Your task to perform on an android device: Add usb-c to usb-b to the cart on ebay.com Image 0: 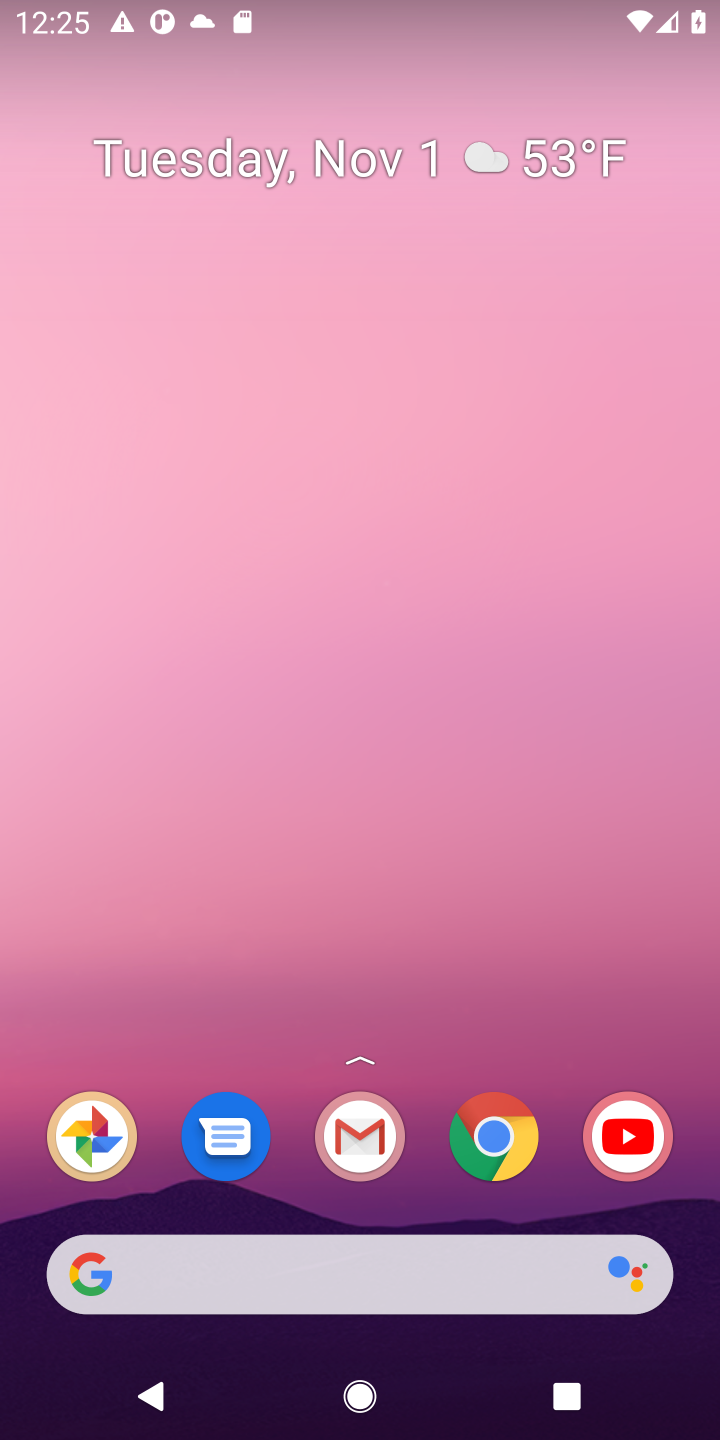
Step 0: press home button
Your task to perform on an android device: Add usb-c to usb-b to the cart on ebay.com Image 1: 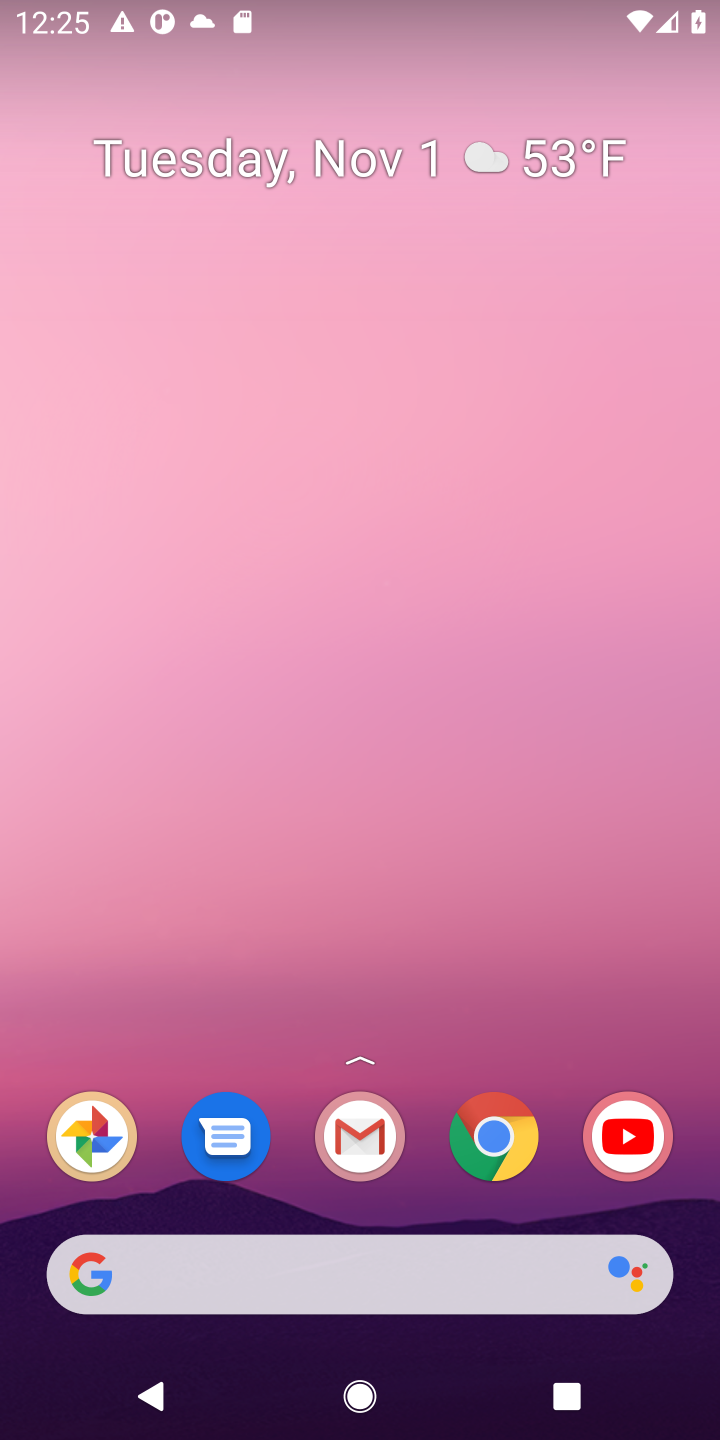
Step 1: click (134, 1269)
Your task to perform on an android device: Add usb-c to usb-b to the cart on ebay.com Image 2: 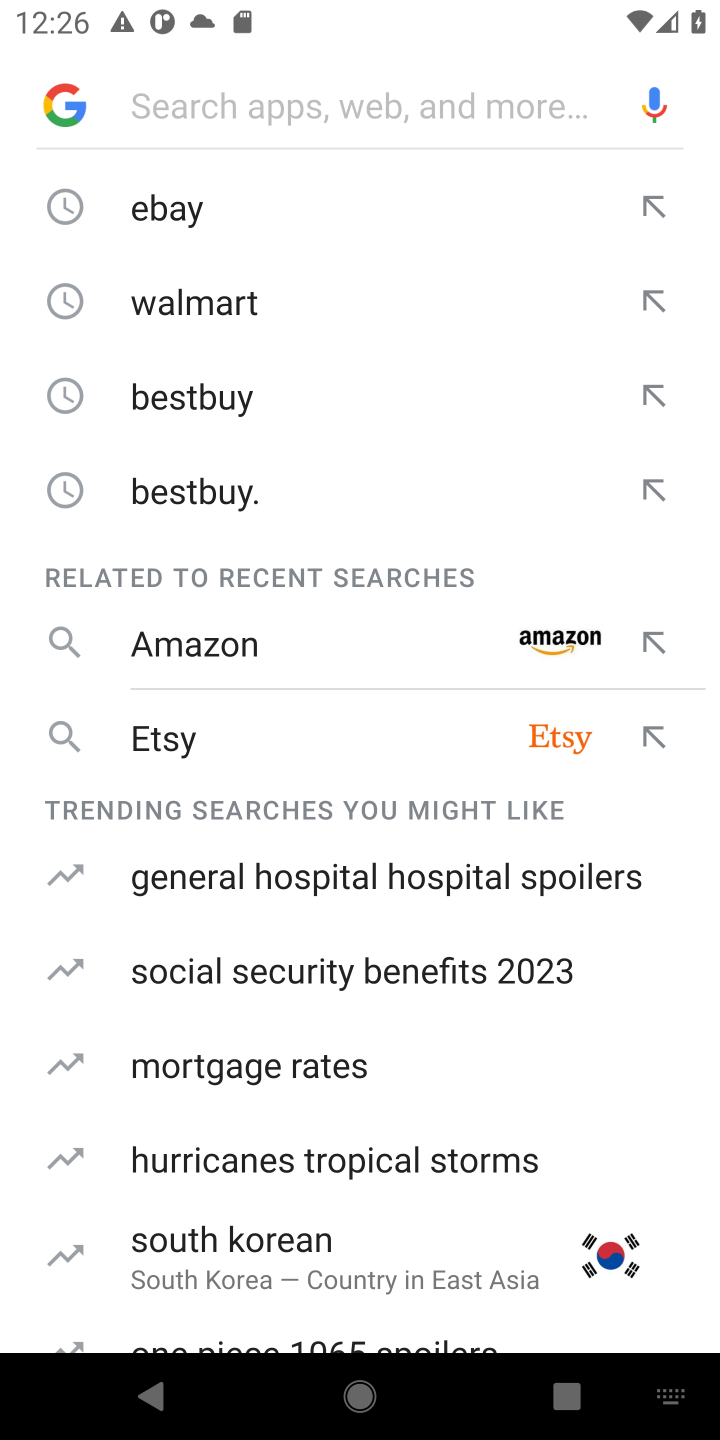
Step 2: type "ebay.com"
Your task to perform on an android device: Add usb-c to usb-b to the cart on ebay.com Image 3: 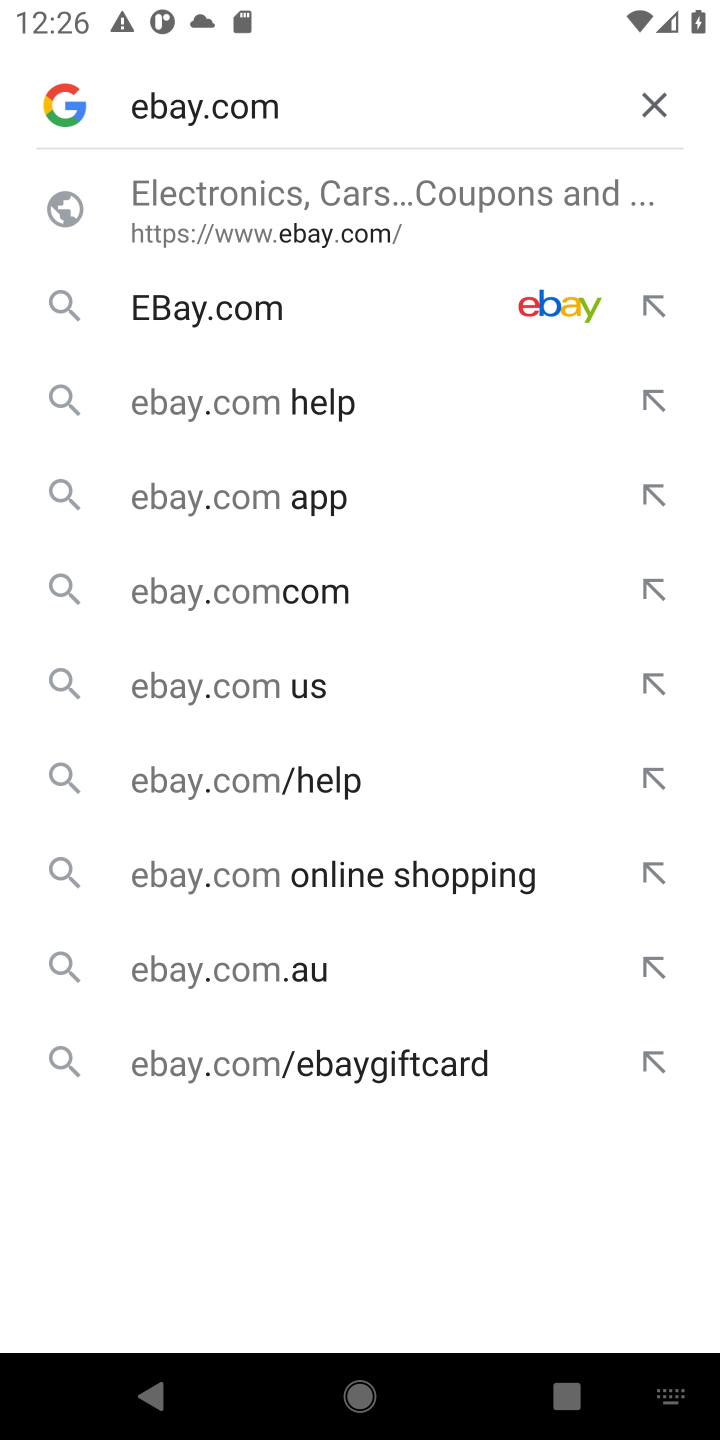
Step 3: press enter
Your task to perform on an android device: Add usb-c to usb-b to the cart on ebay.com Image 4: 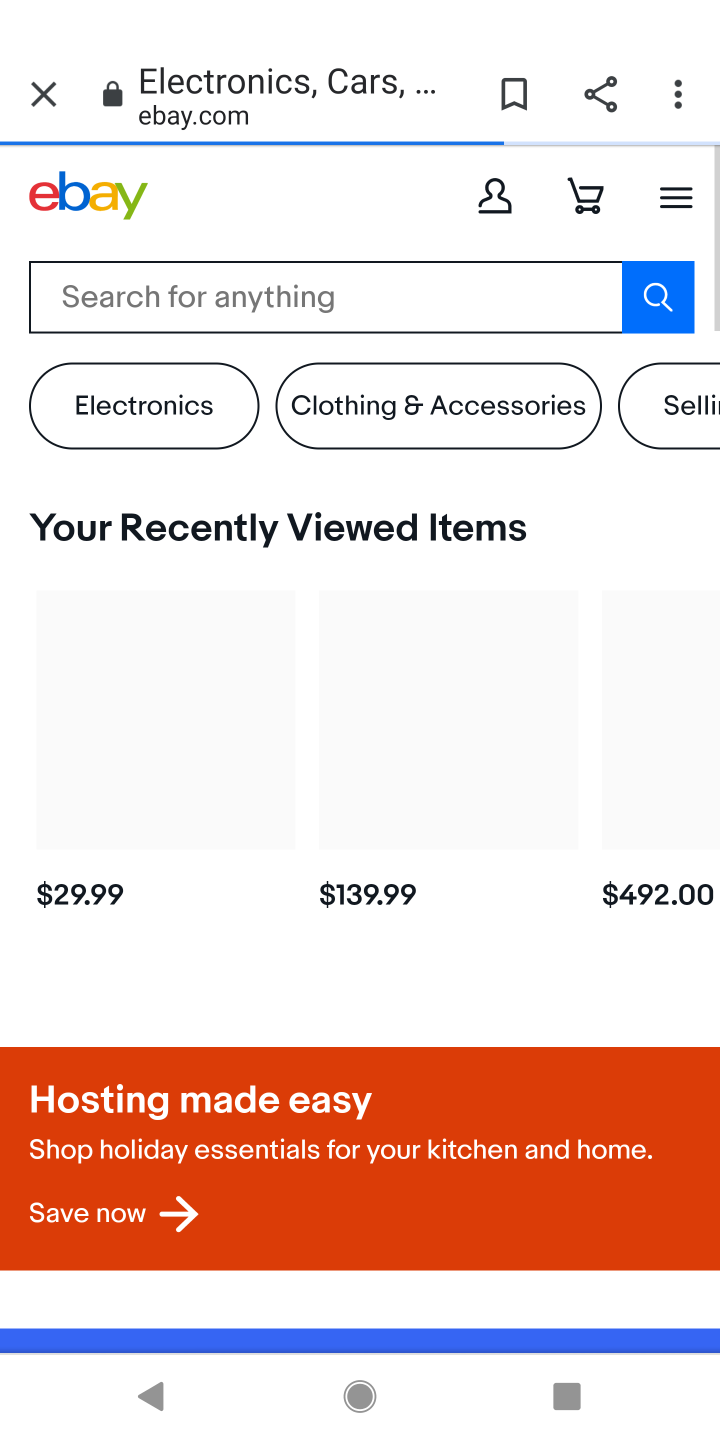
Step 4: press enter
Your task to perform on an android device: Add usb-c to usb-b to the cart on ebay.com Image 5: 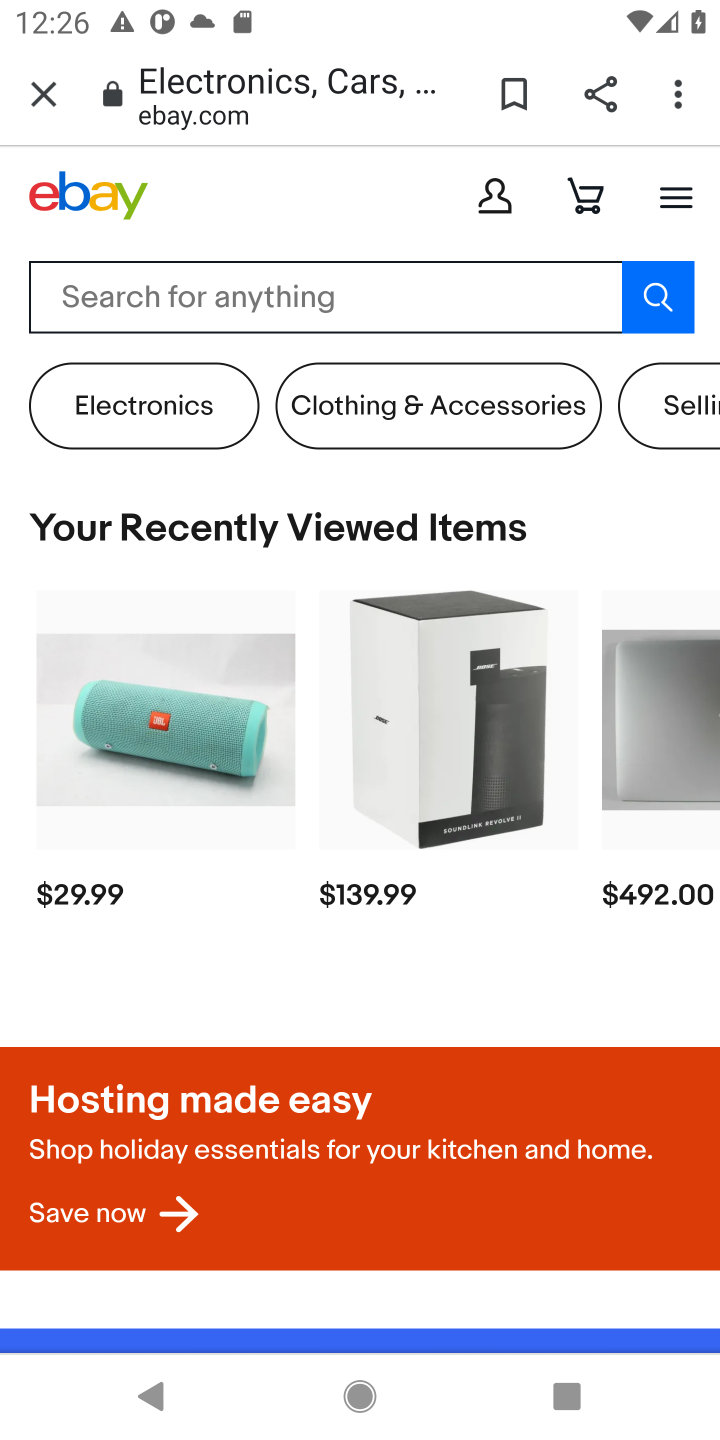
Step 5: click (110, 299)
Your task to perform on an android device: Add usb-c to usb-b to the cart on ebay.com Image 6: 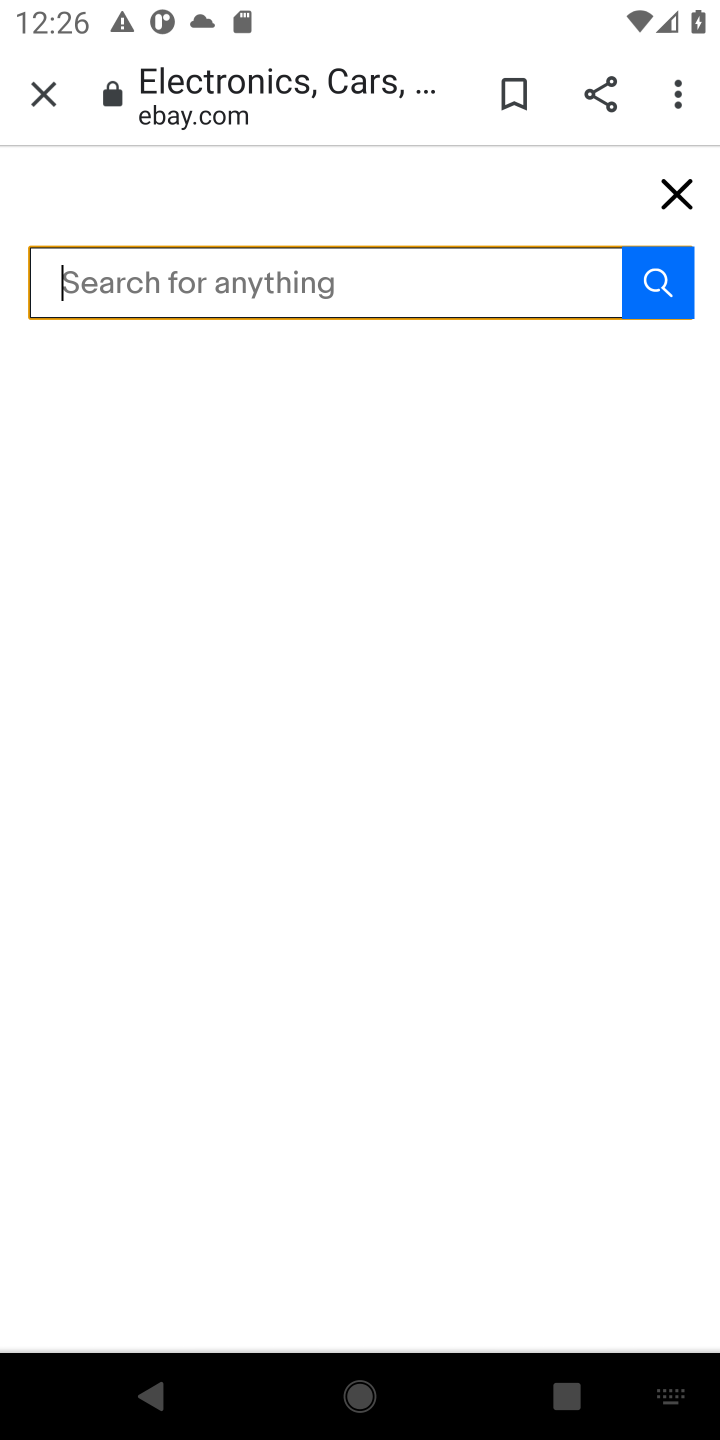
Step 6: type " usb-c to usb-b"
Your task to perform on an android device: Add usb-c to usb-b to the cart on ebay.com Image 7: 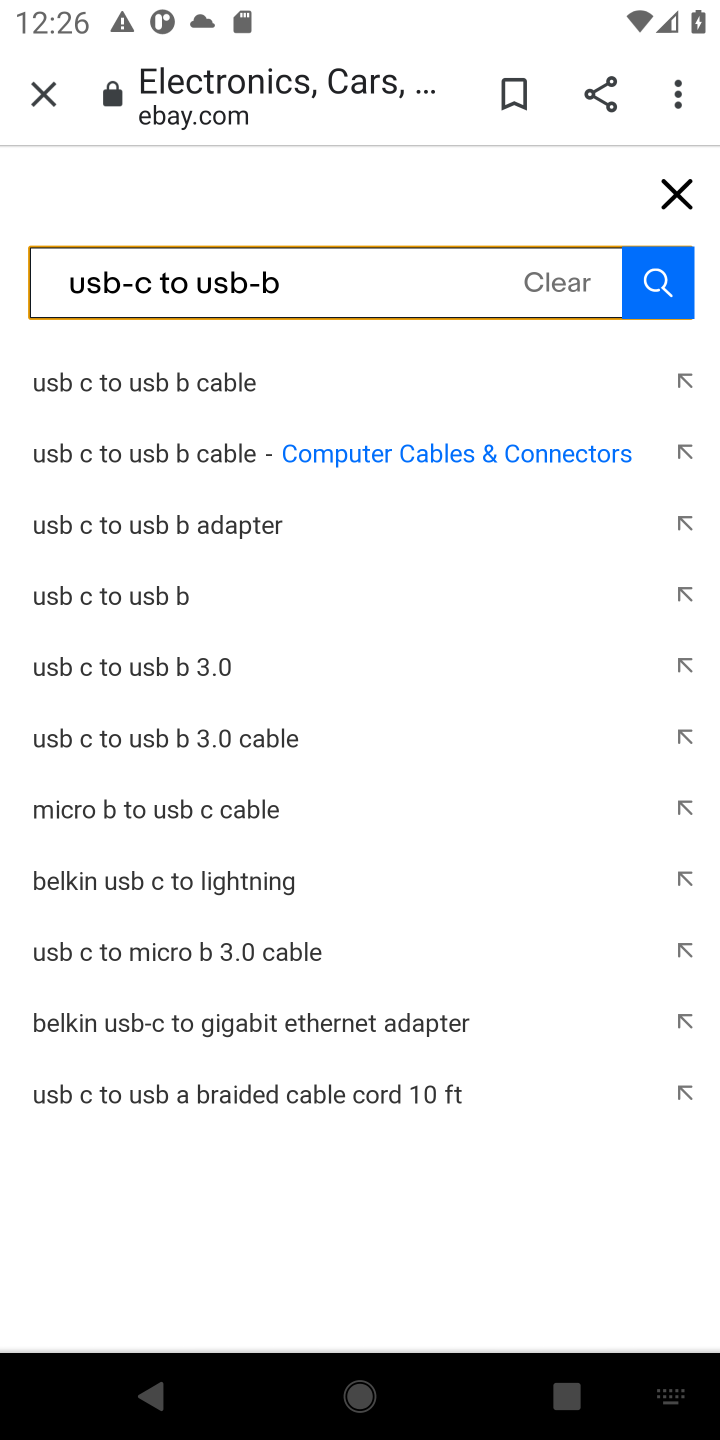
Step 7: click (671, 285)
Your task to perform on an android device: Add usb-c to usb-b to the cart on ebay.com Image 8: 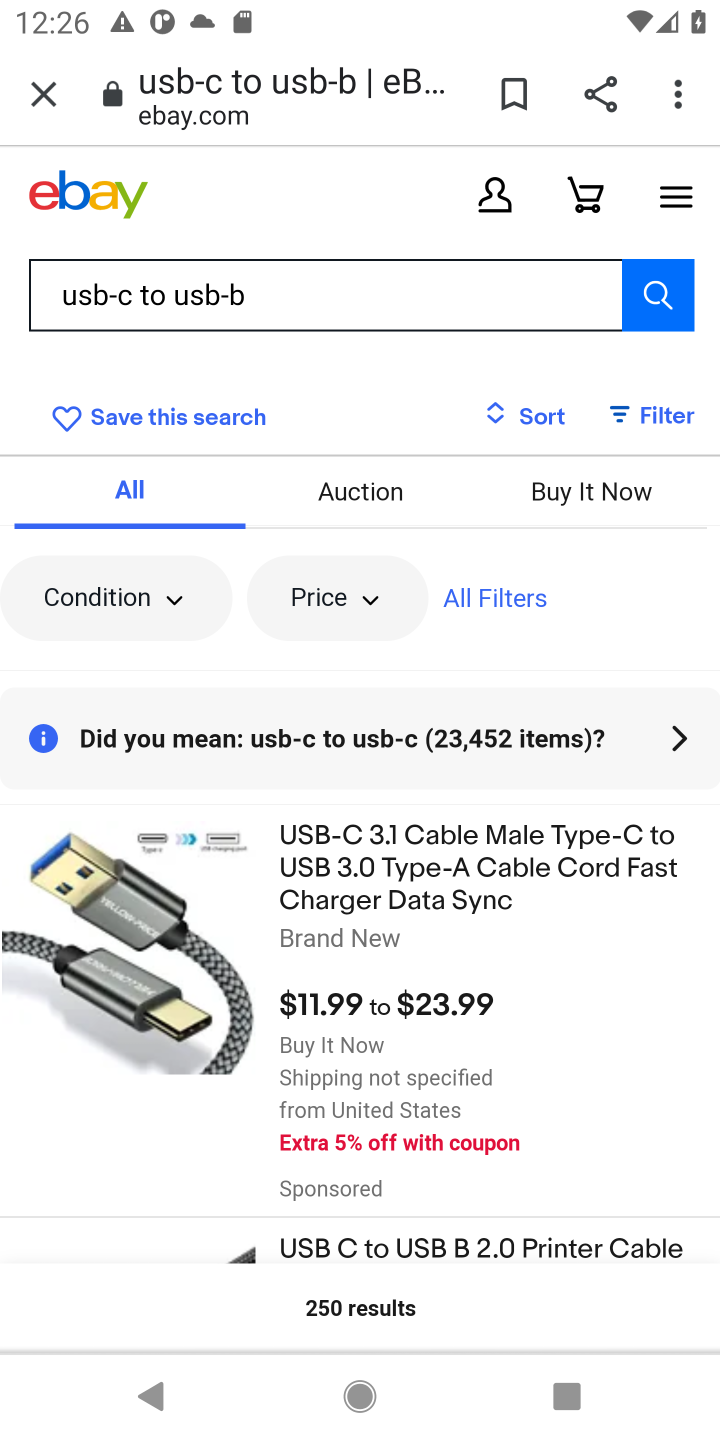
Step 8: drag from (477, 1121) to (470, 846)
Your task to perform on an android device: Add usb-c to usb-b to the cart on ebay.com Image 9: 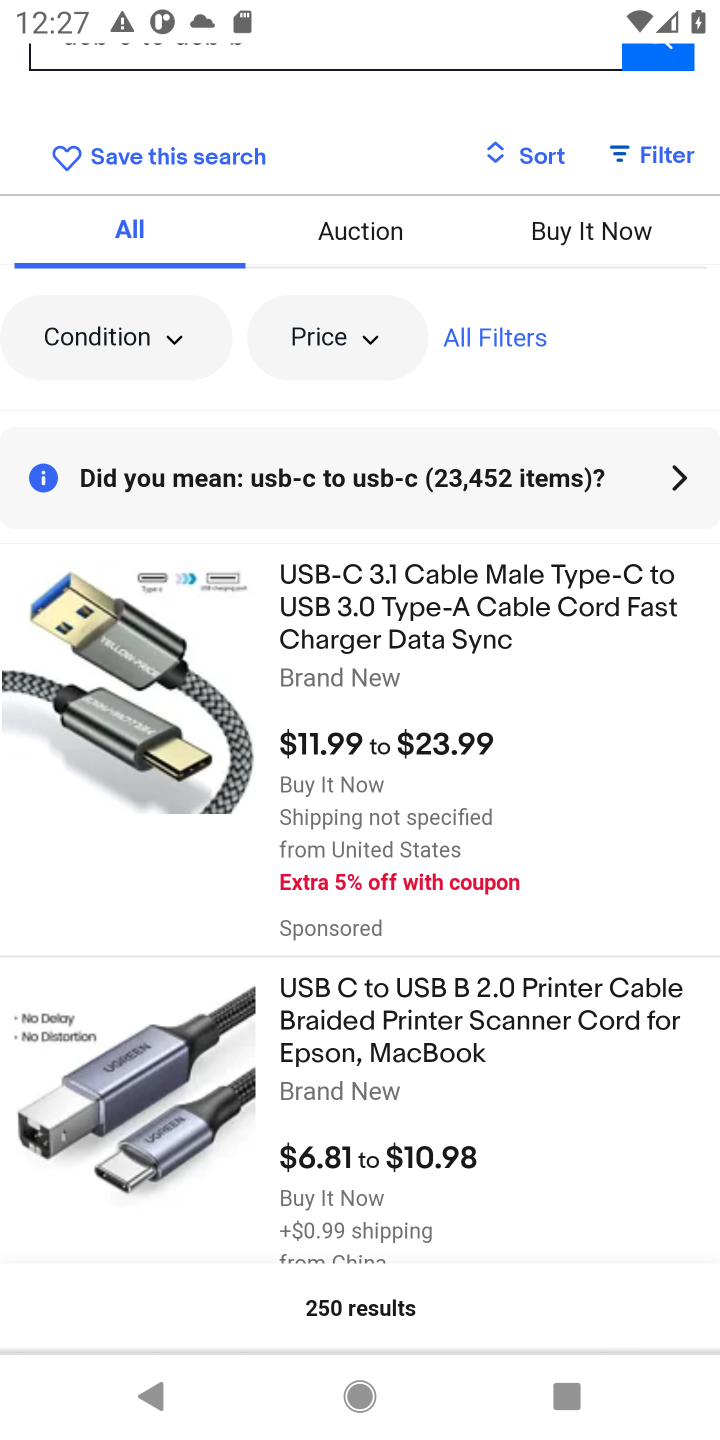
Step 9: drag from (472, 1154) to (508, 811)
Your task to perform on an android device: Add usb-c to usb-b to the cart on ebay.com Image 10: 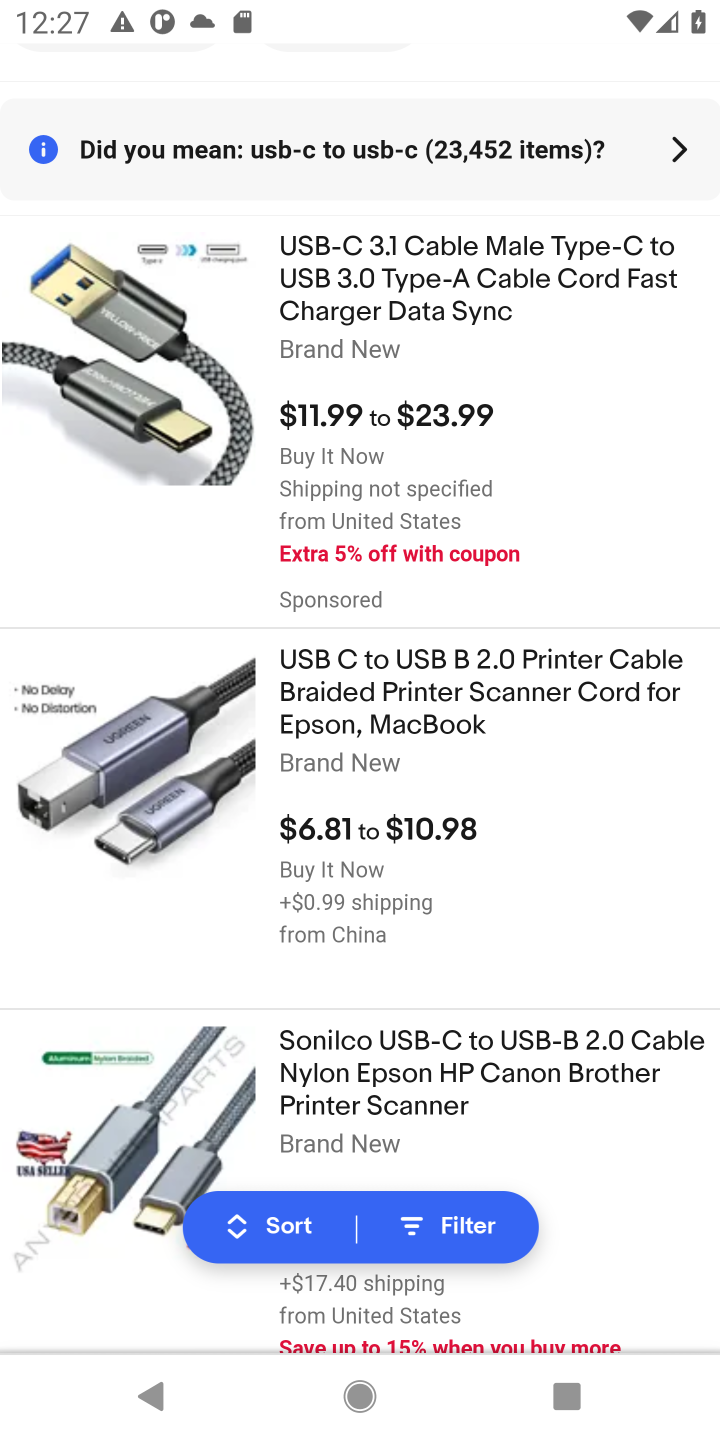
Step 10: click (392, 696)
Your task to perform on an android device: Add usb-c to usb-b to the cart on ebay.com Image 11: 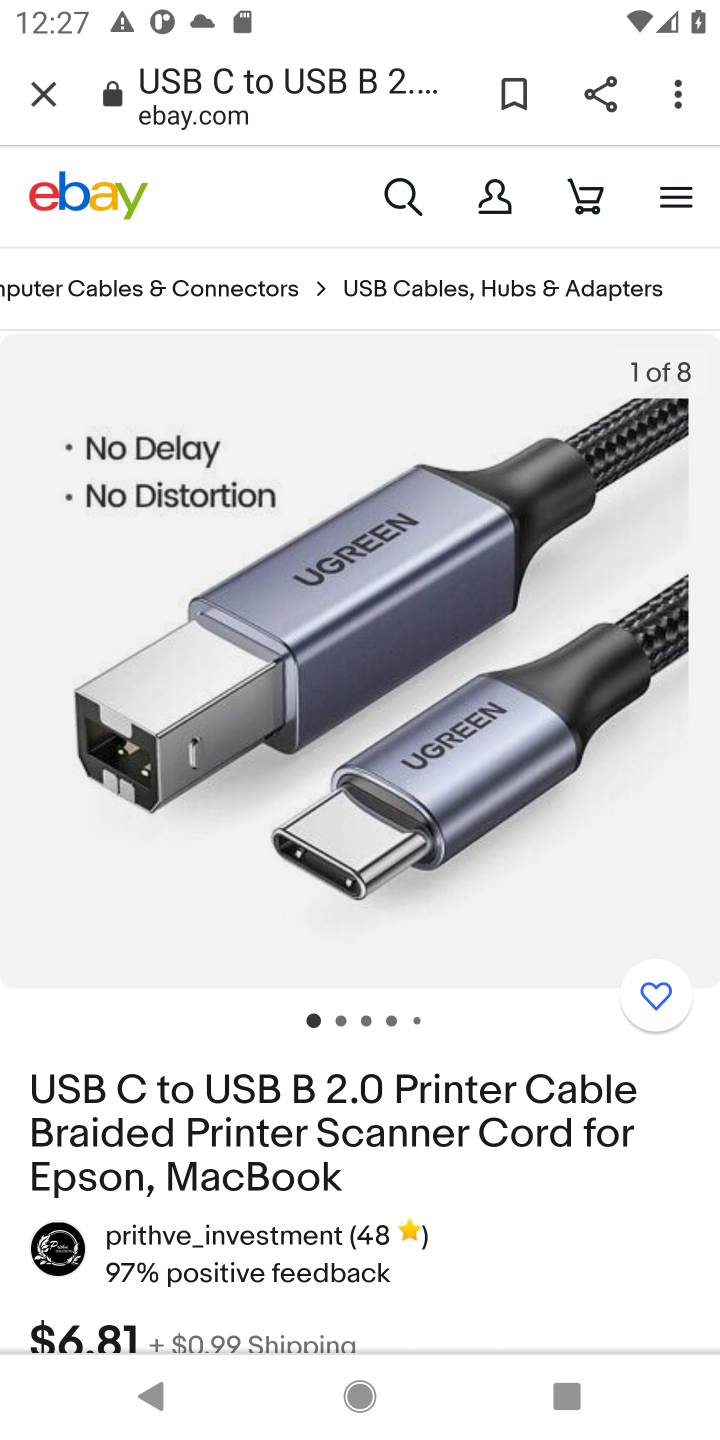
Step 11: drag from (414, 1114) to (478, 690)
Your task to perform on an android device: Add usb-c to usb-b to the cart on ebay.com Image 12: 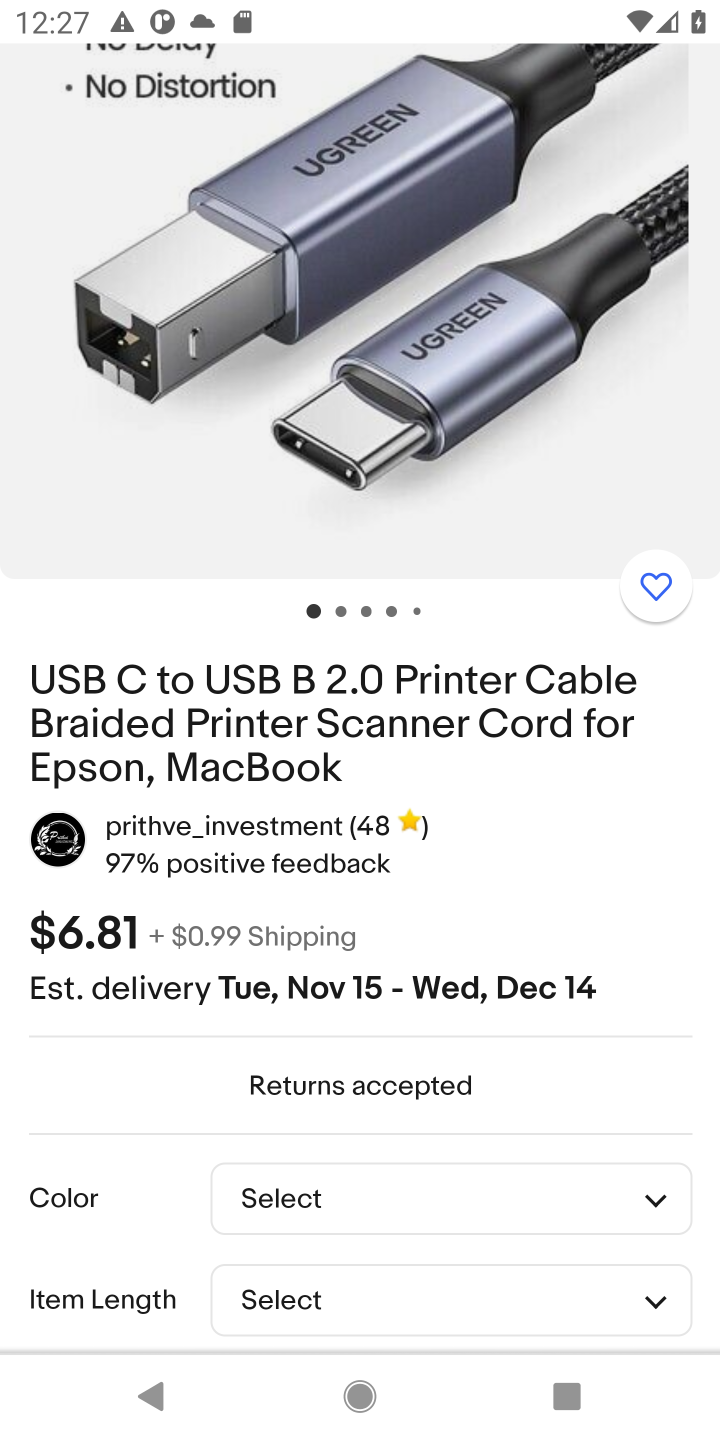
Step 12: drag from (402, 1168) to (447, 417)
Your task to perform on an android device: Add usb-c to usb-b to the cart on ebay.com Image 13: 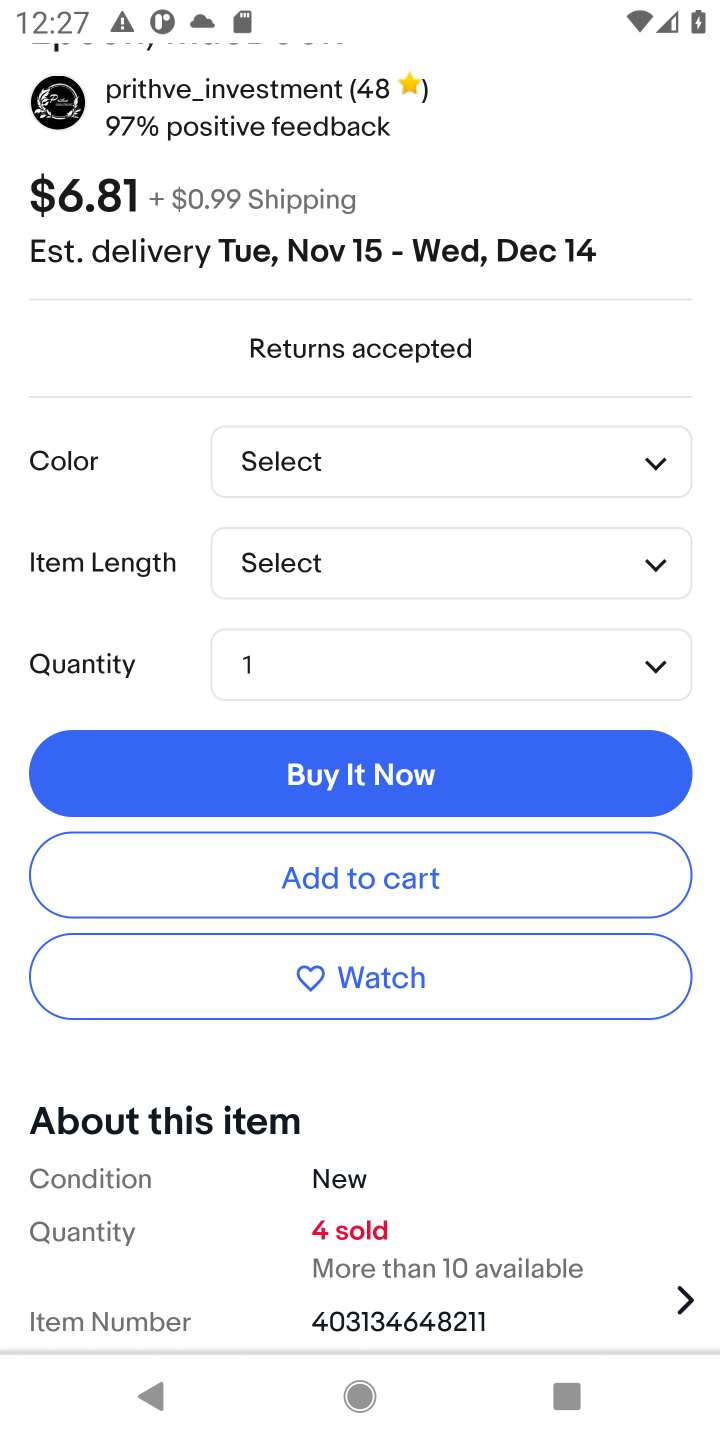
Step 13: click (341, 871)
Your task to perform on an android device: Add usb-c to usb-b to the cart on ebay.com Image 14: 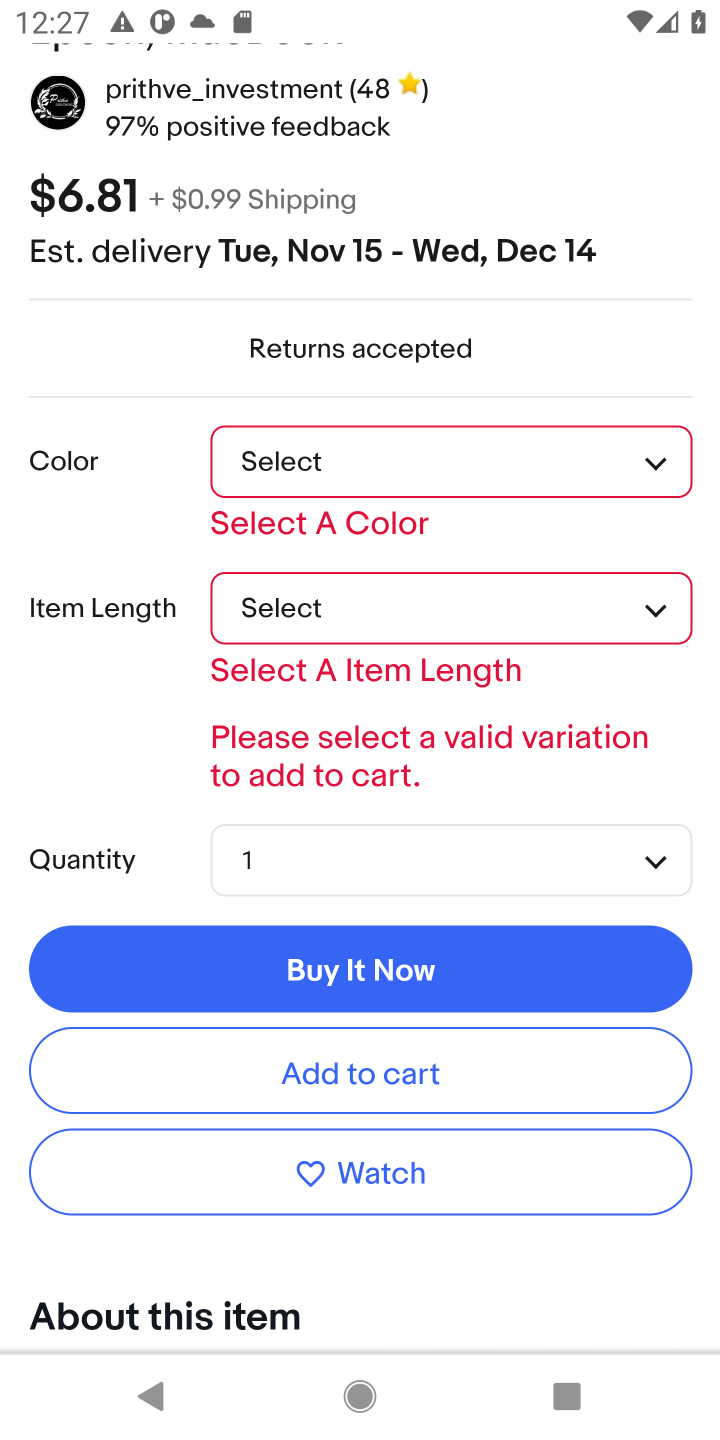
Step 14: click (655, 454)
Your task to perform on an android device: Add usb-c to usb-b to the cart on ebay.com Image 15: 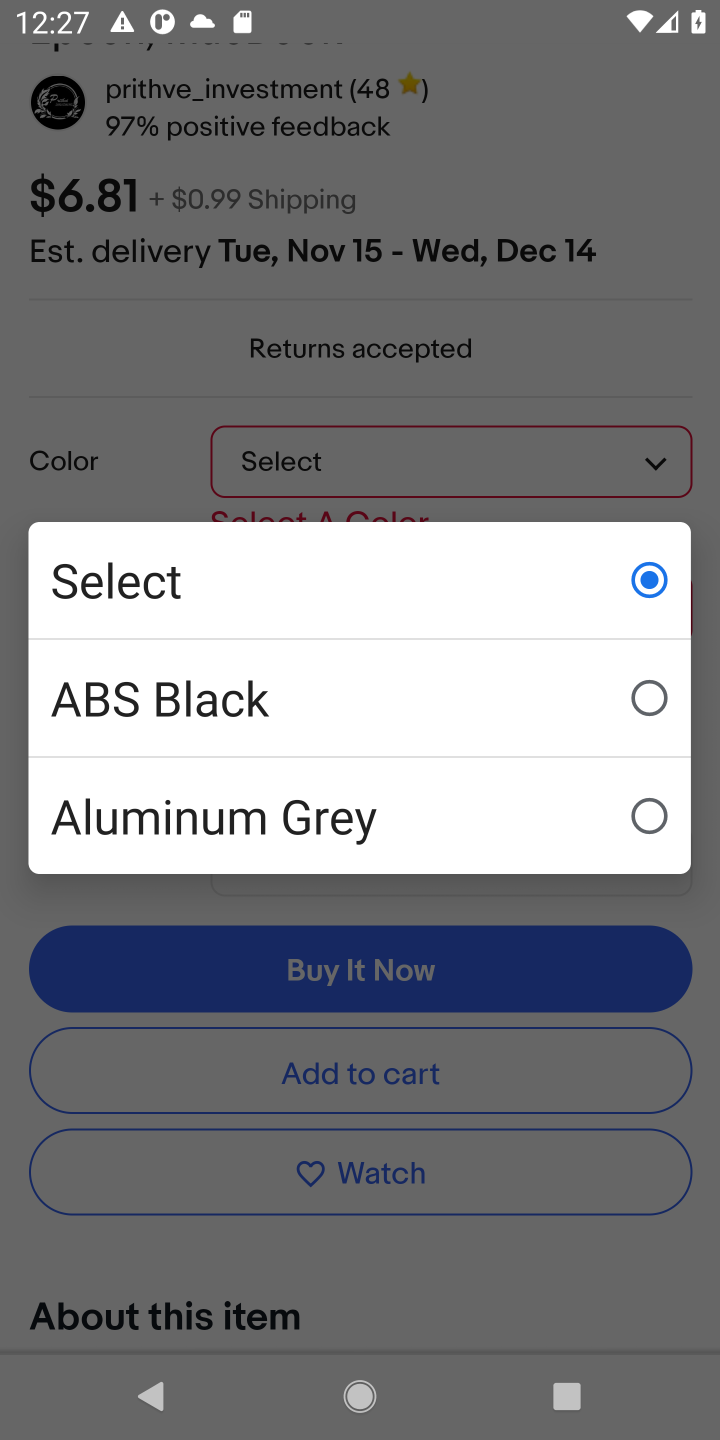
Step 15: click (650, 699)
Your task to perform on an android device: Add usb-c to usb-b to the cart on ebay.com Image 16: 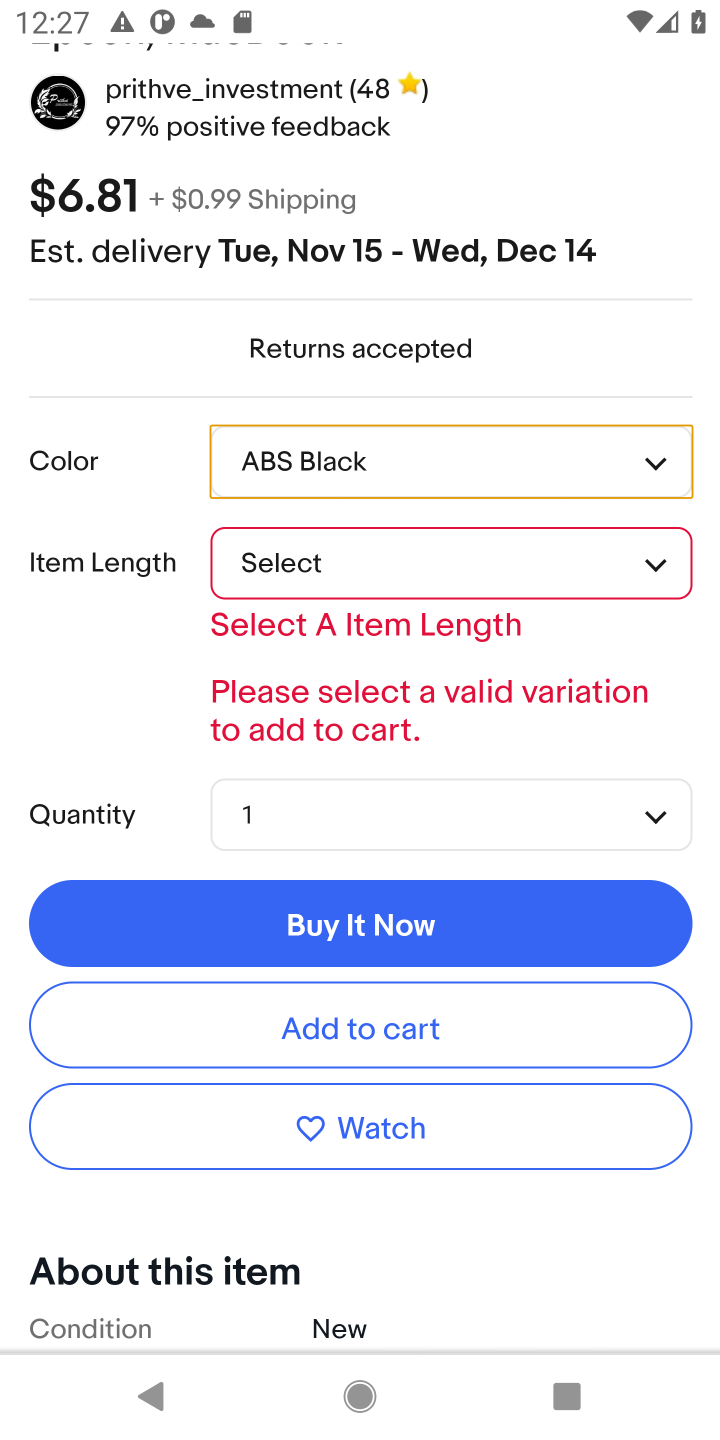
Step 16: click (647, 558)
Your task to perform on an android device: Add usb-c to usb-b to the cart on ebay.com Image 17: 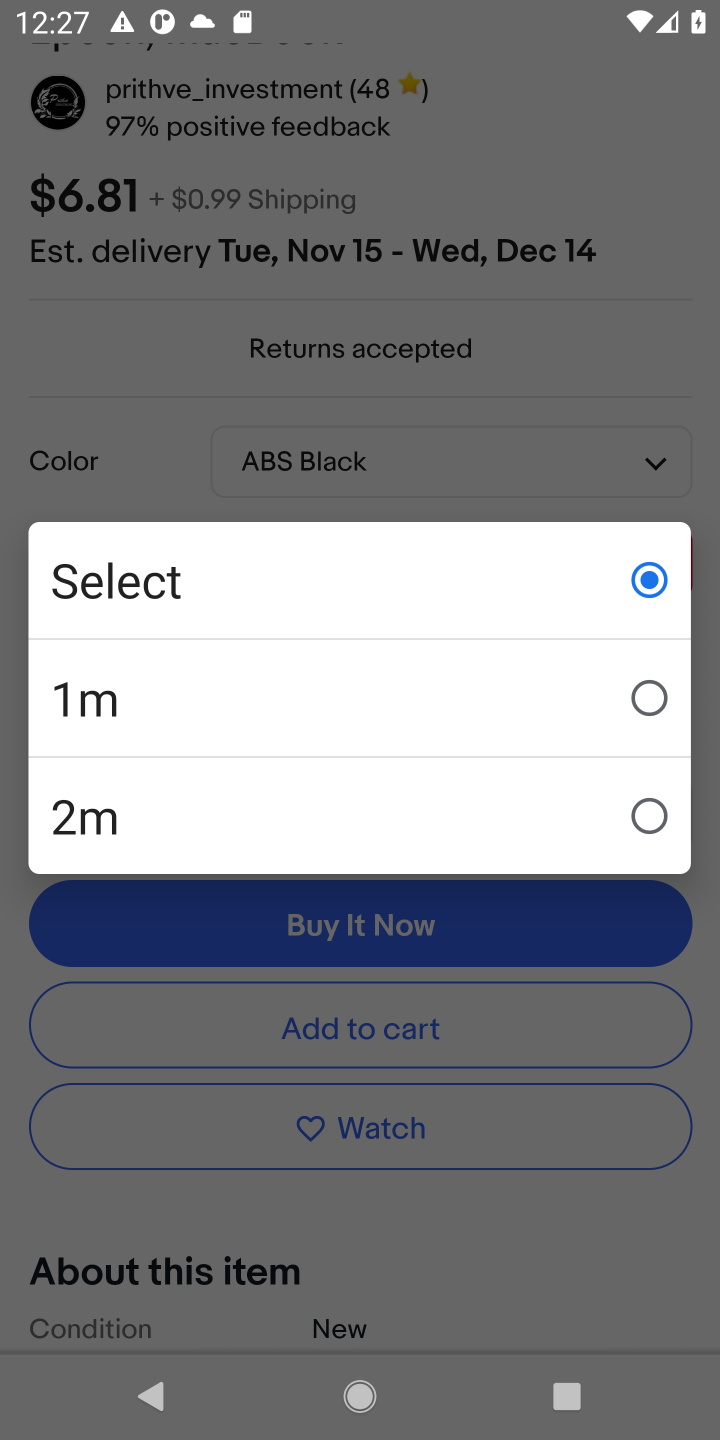
Step 17: click (659, 714)
Your task to perform on an android device: Add usb-c to usb-b to the cart on ebay.com Image 18: 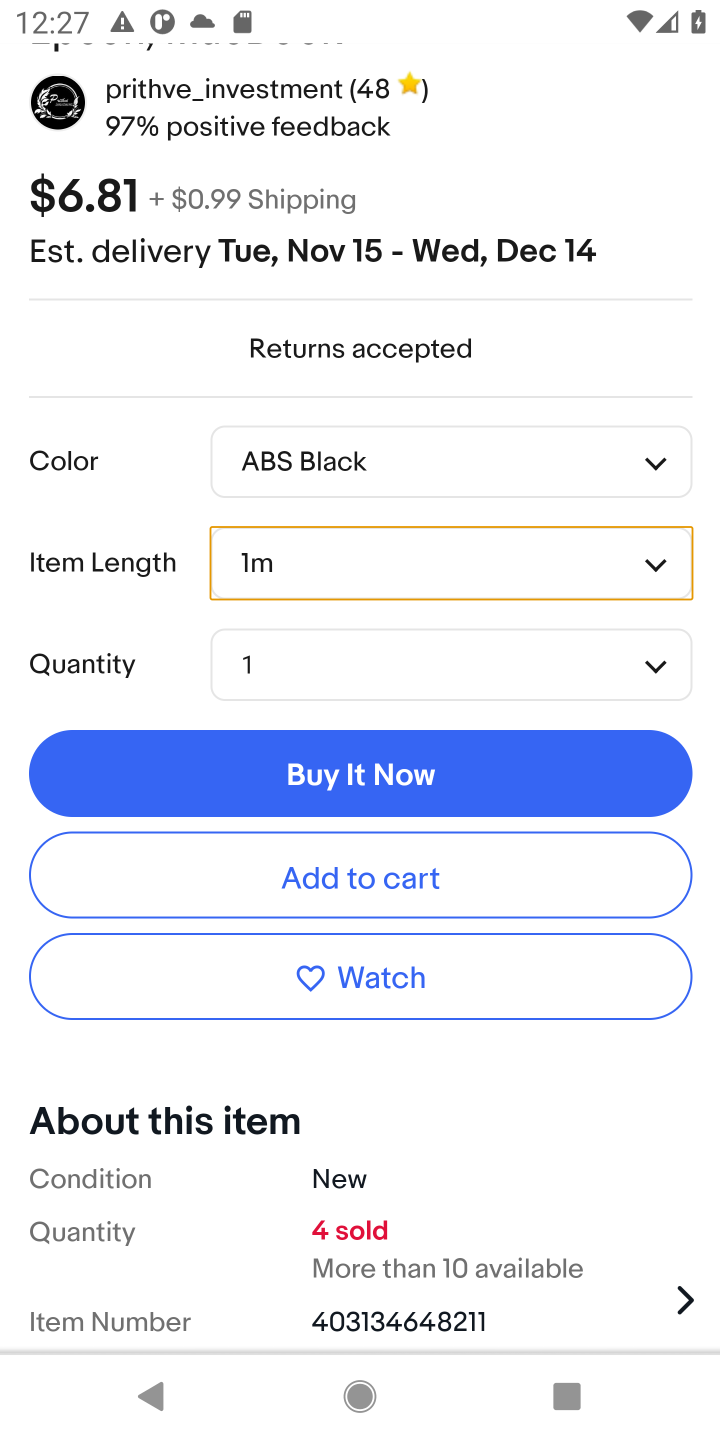
Step 18: click (383, 880)
Your task to perform on an android device: Add usb-c to usb-b to the cart on ebay.com Image 19: 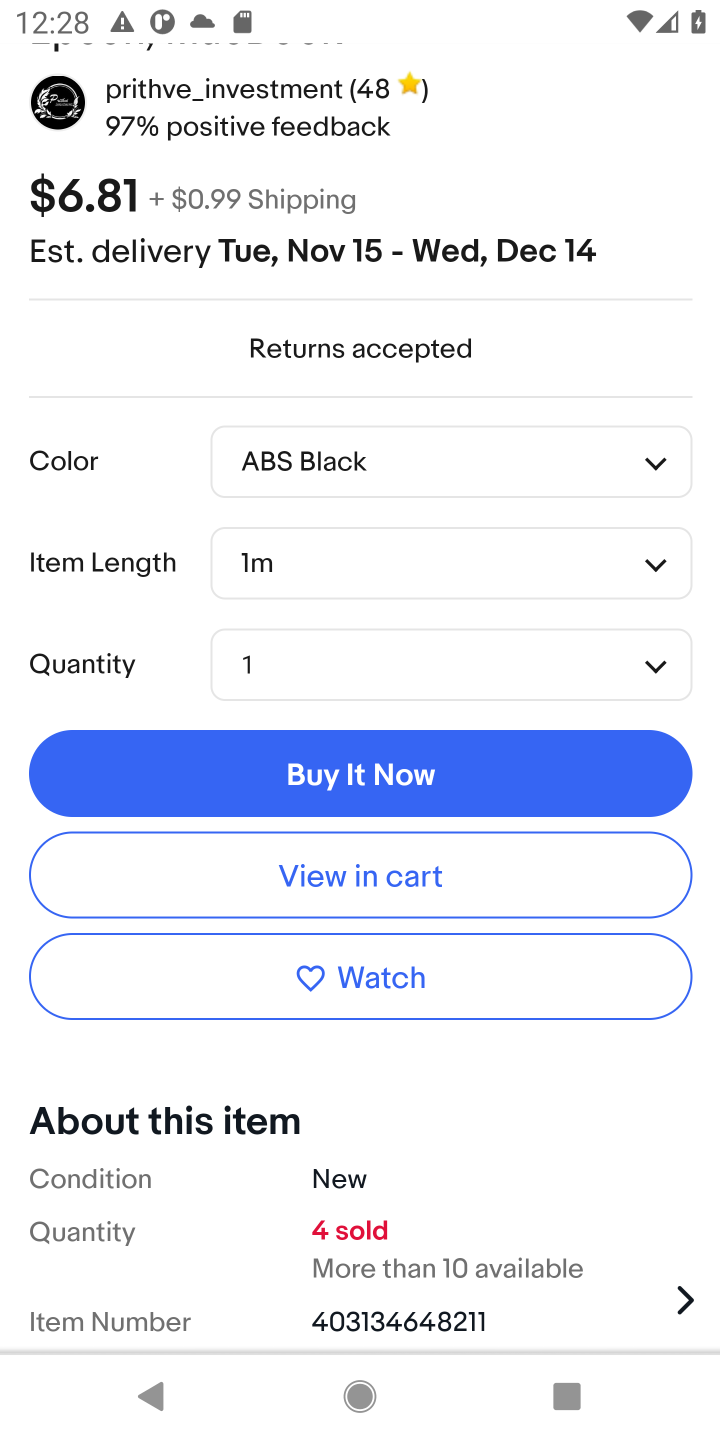
Step 19: task complete